Your task to perform on an android device: set the timer Image 0: 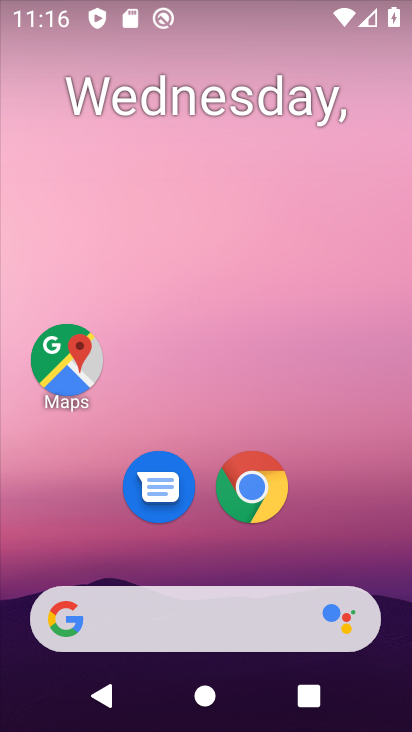
Step 0: drag from (351, 428) to (235, 0)
Your task to perform on an android device: set the timer Image 1: 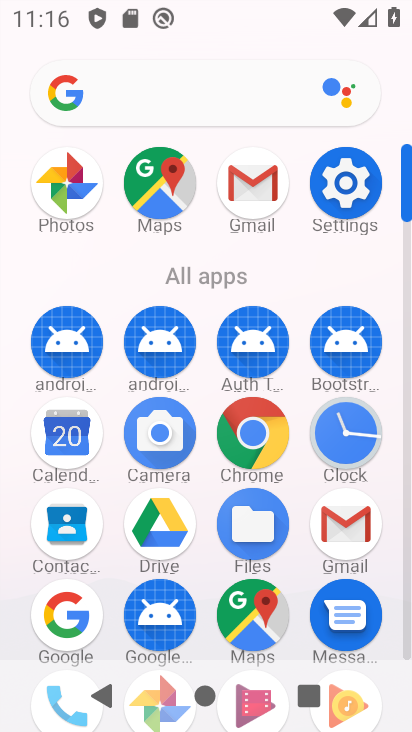
Step 1: drag from (13, 531) to (17, 215)
Your task to perform on an android device: set the timer Image 2: 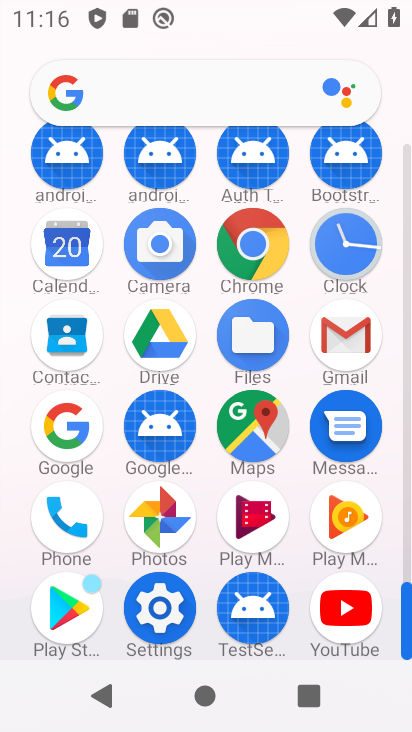
Step 2: click (340, 234)
Your task to perform on an android device: set the timer Image 3: 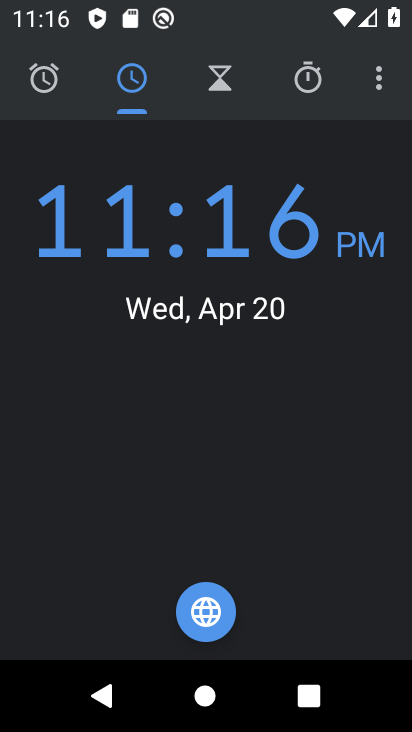
Step 3: click (382, 71)
Your task to perform on an android device: set the timer Image 4: 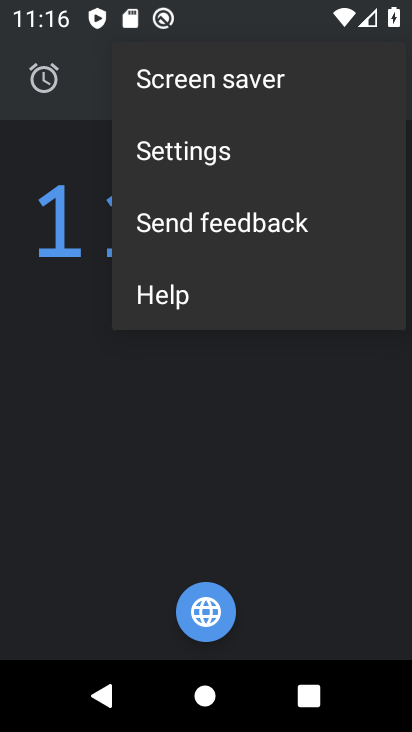
Step 4: click (180, 157)
Your task to perform on an android device: set the timer Image 5: 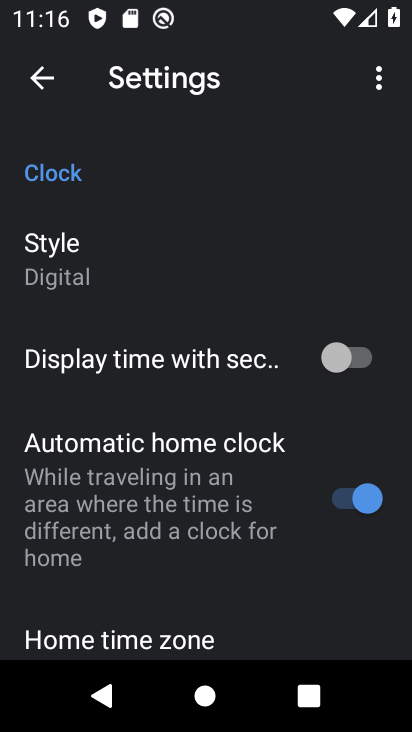
Step 5: click (37, 77)
Your task to perform on an android device: set the timer Image 6: 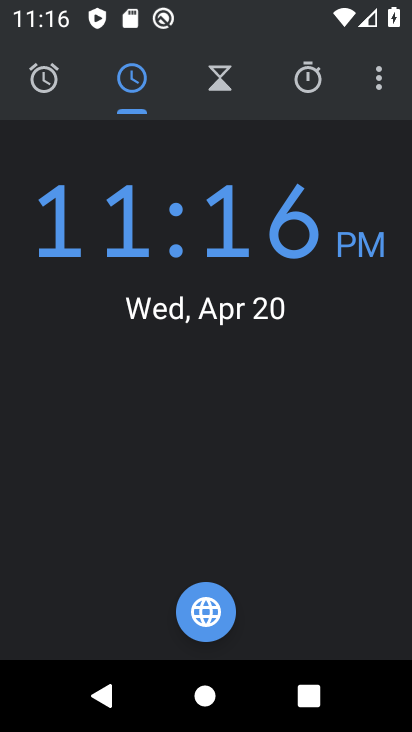
Step 6: click (280, 94)
Your task to perform on an android device: set the timer Image 7: 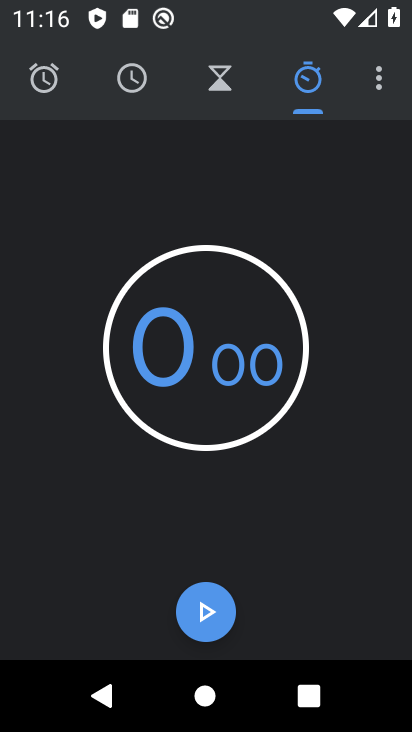
Step 7: click (213, 87)
Your task to perform on an android device: set the timer Image 8: 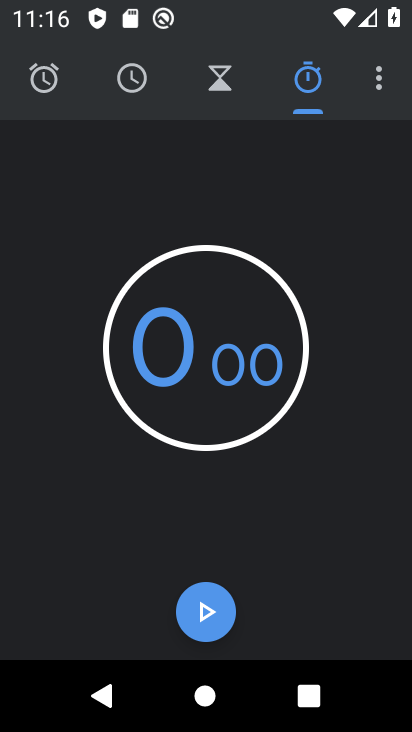
Step 8: click (213, 87)
Your task to perform on an android device: set the timer Image 9: 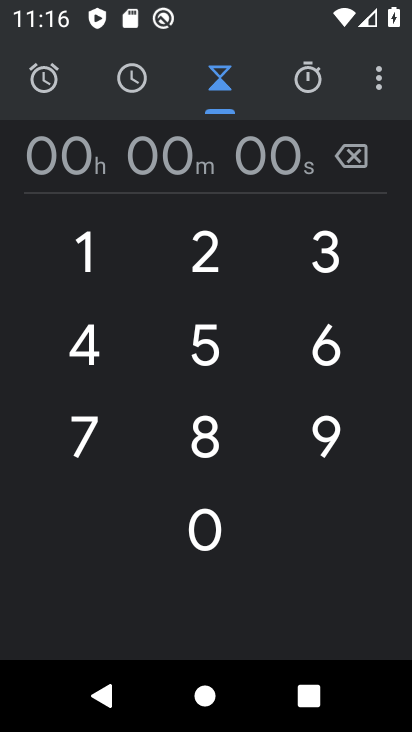
Step 9: click (190, 435)
Your task to perform on an android device: set the timer Image 10: 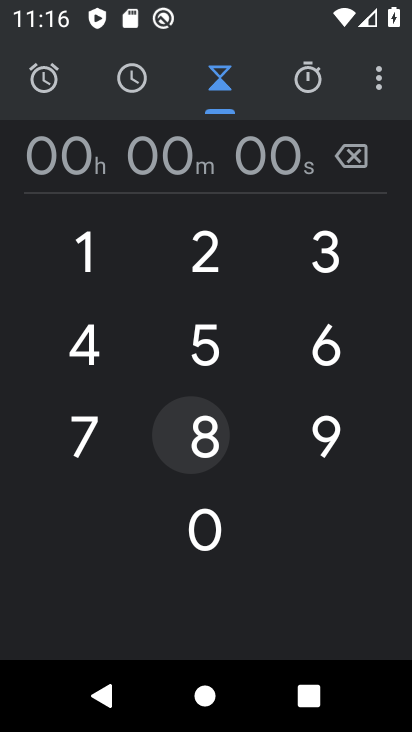
Step 10: click (214, 339)
Your task to perform on an android device: set the timer Image 11: 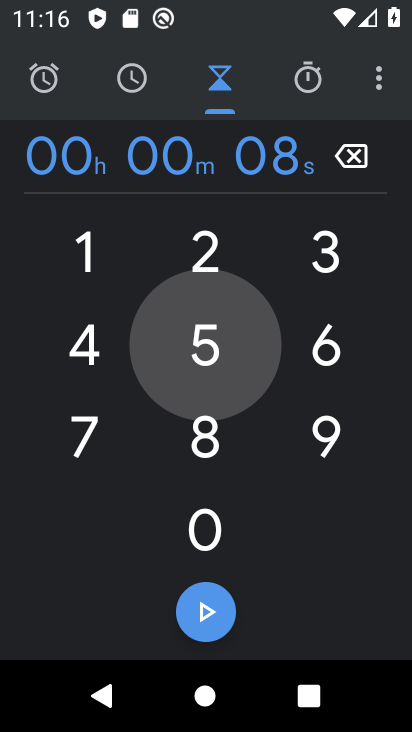
Step 11: click (104, 330)
Your task to perform on an android device: set the timer Image 12: 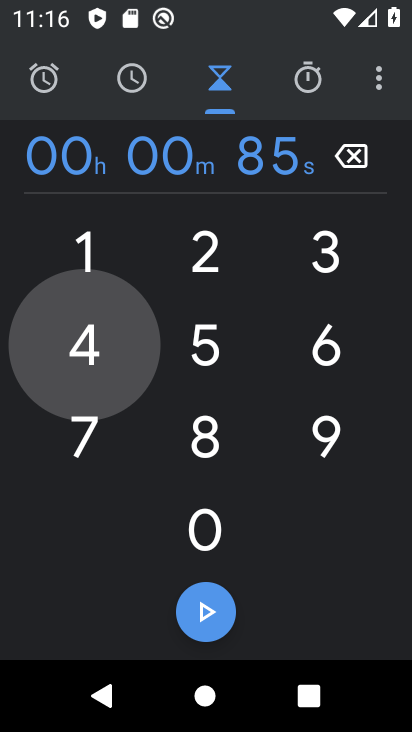
Step 12: click (92, 478)
Your task to perform on an android device: set the timer Image 13: 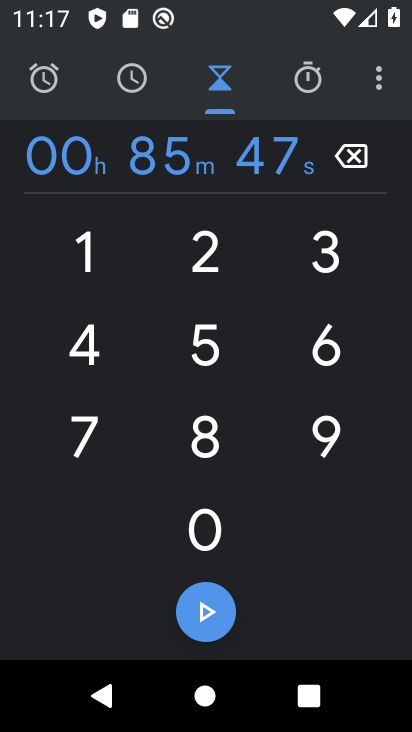
Step 13: click (192, 607)
Your task to perform on an android device: set the timer Image 14: 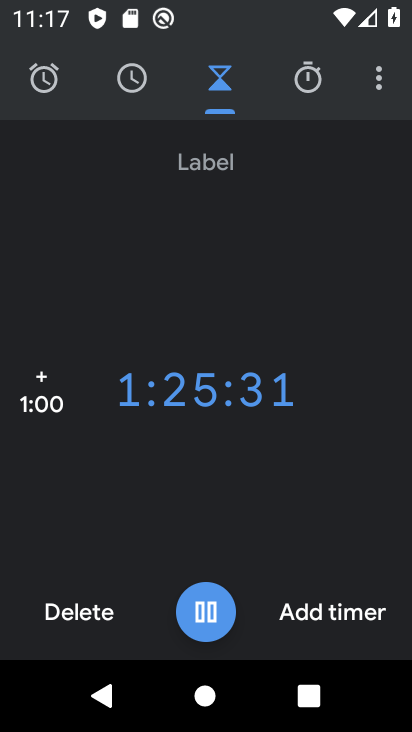
Step 14: task complete